Your task to perform on an android device: Toggle the flashlight Image 0: 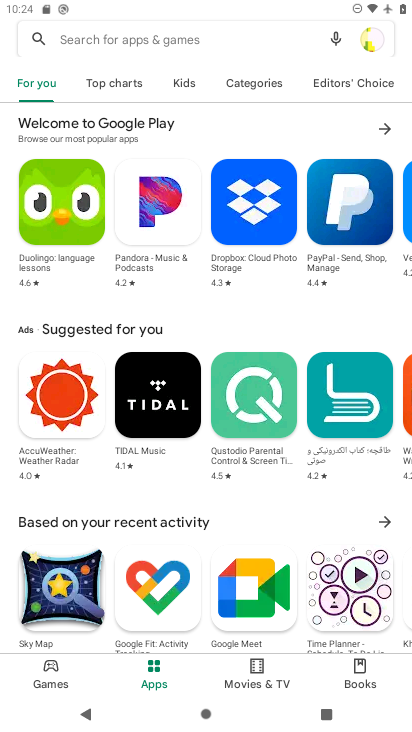
Step 0: press home button
Your task to perform on an android device: Toggle the flashlight Image 1: 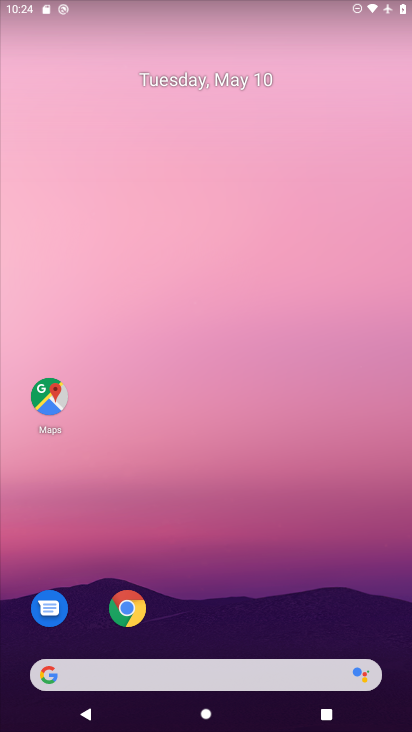
Step 1: drag from (234, 599) to (245, 291)
Your task to perform on an android device: Toggle the flashlight Image 2: 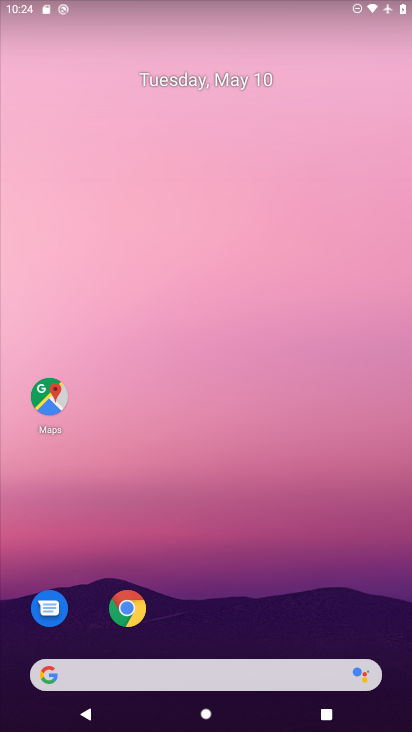
Step 2: drag from (225, 632) to (280, 282)
Your task to perform on an android device: Toggle the flashlight Image 3: 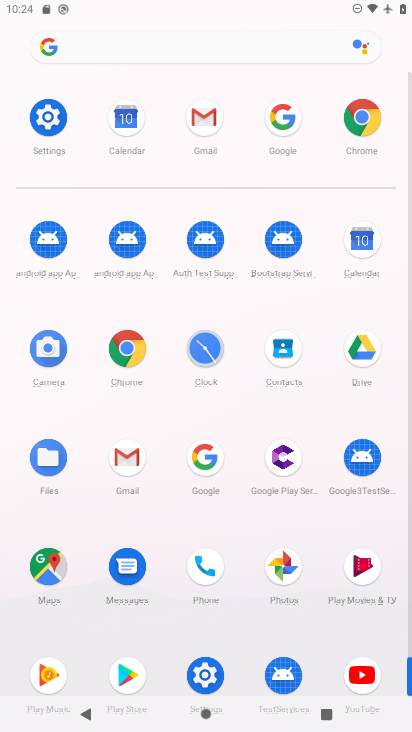
Step 3: click (44, 113)
Your task to perform on an android device: Toggle the flashlight Image 4: 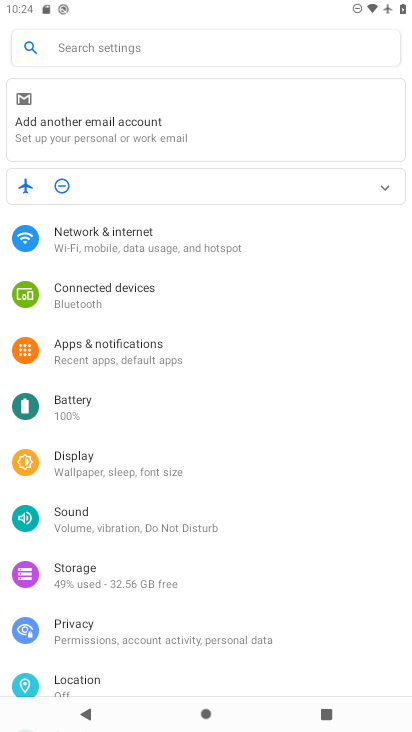
Step 4: task complete